Your task to perform on an android device: change keyboard looks Image 0: 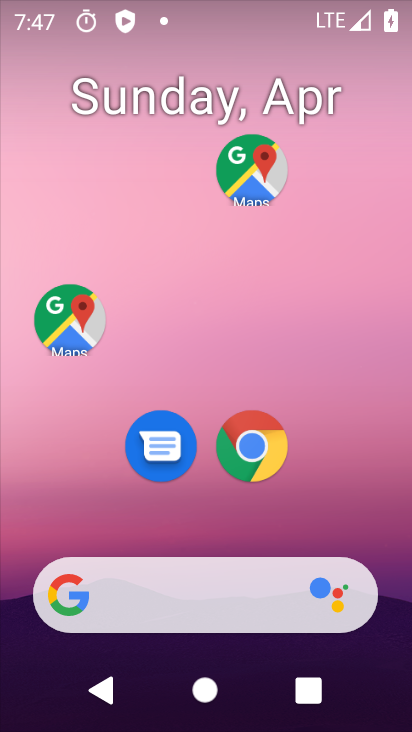
Step 0: drag from (219, 533) to (285, 16)
Your task to perform on an android device: change keyboard looks Image 1: 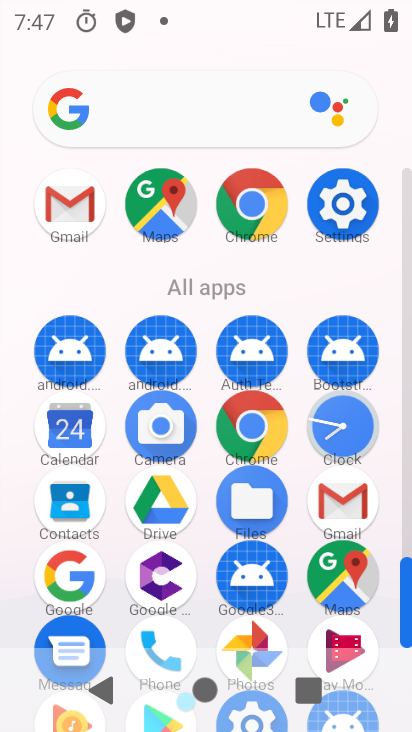
Step 1: click (331, 192)
Your task to perform on an android device: change keyboard looks Image 2: 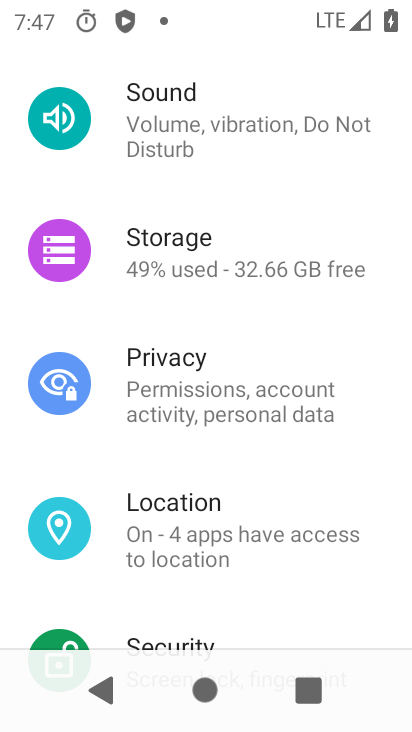
Step 2: drag from (191, 533) to (172, 115)
Your task to perform on an android device: change keyboard looks Image 3: 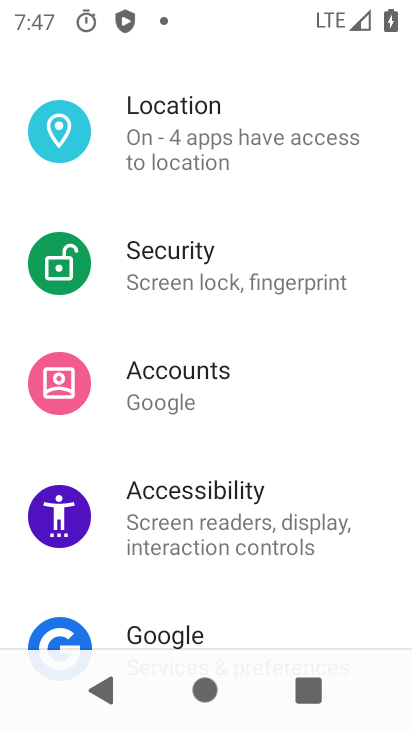
Step 3: click (182, 493)
Your task to perform on an android device: change keyboard looks Image 4: 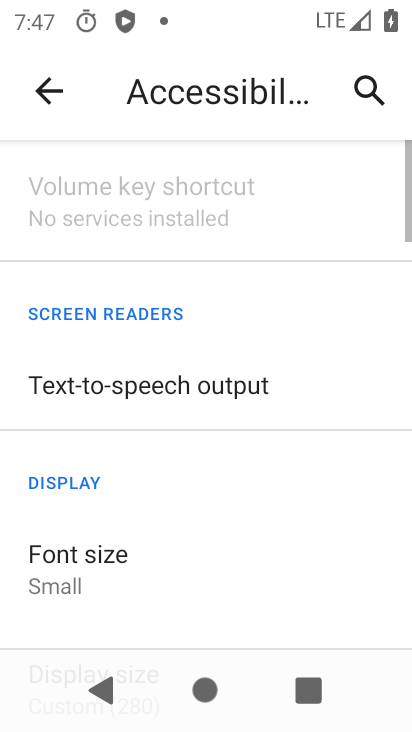
Step 4: click (61, 102)
Your task to perform on an android device: change keyboard looks Image 5: 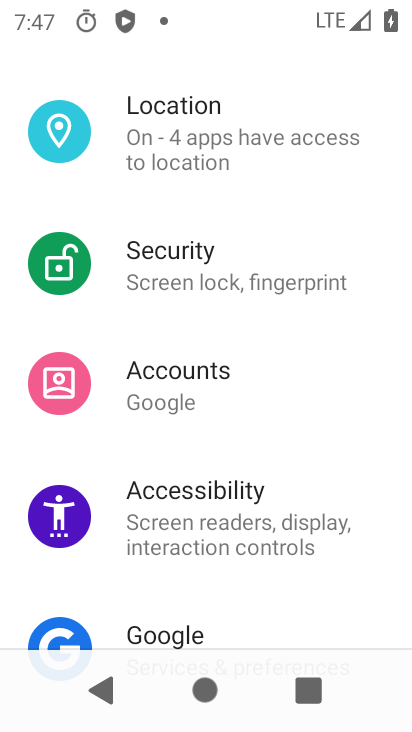
Step 5: drag from (212, 628) to (166, 267)
Your task to perform on an android device: change keyboard looks Image 6: 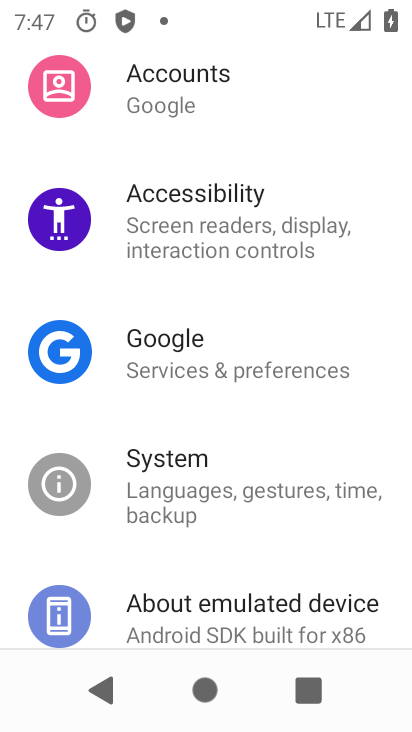
Step 6: click (187, 496)
Your task to perform on an android device: change keyboard looks Image 7: 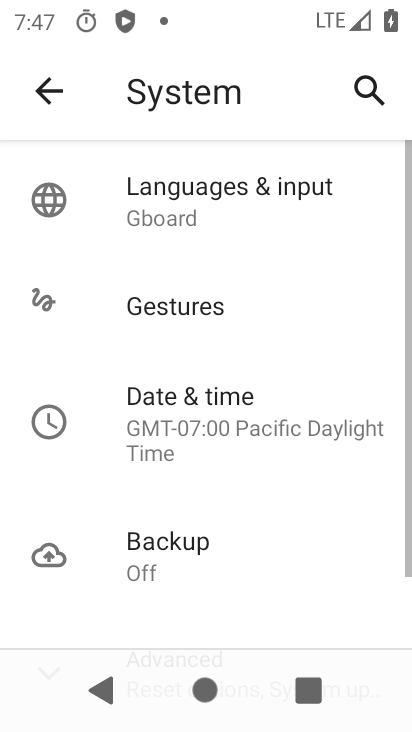
Step 7: click (146, 239)
Your task to perform on an android device: change keyboard looks Image 8: 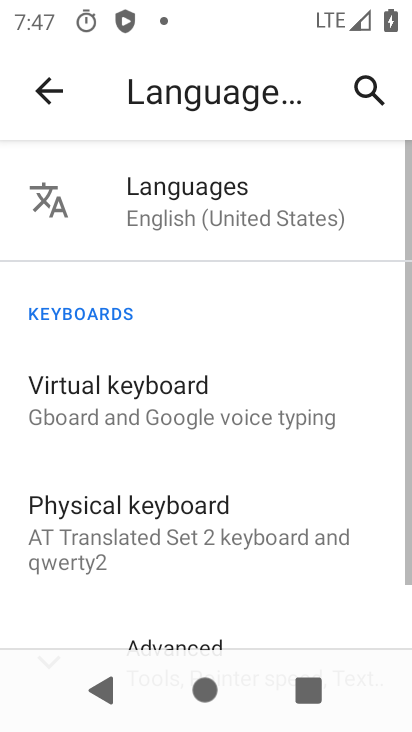
Step 8: click (160, 378)
Your task to perform on an android device: change keyboard looks Image 9: 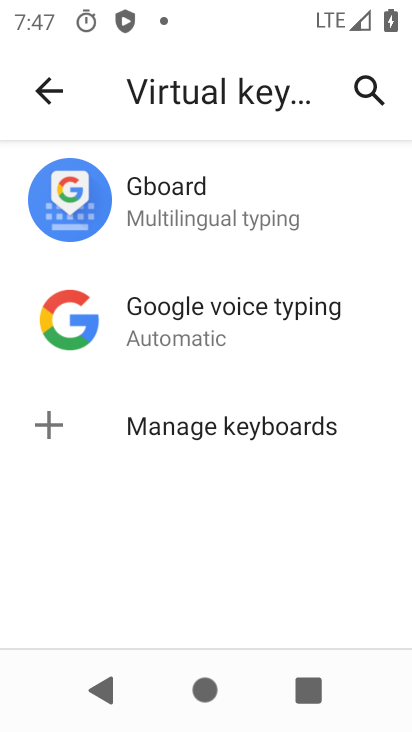
Step 9: click (147, 208)
Your task to perform on an android device: change keyboard looks Image 10: 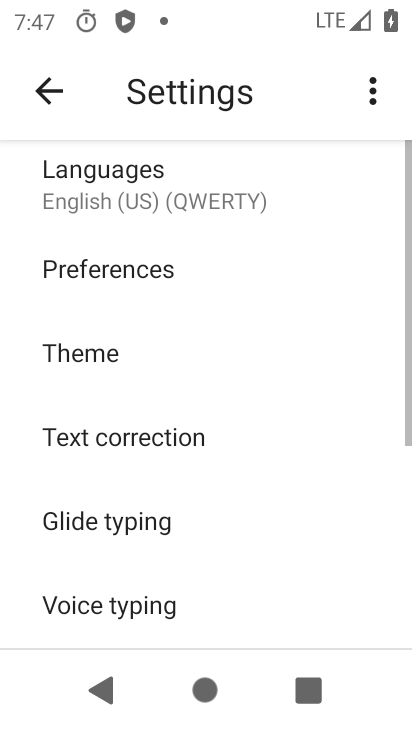
Step 10: click (117, 370)
Your task to perform on an android device: change keyboard looks Image 11: 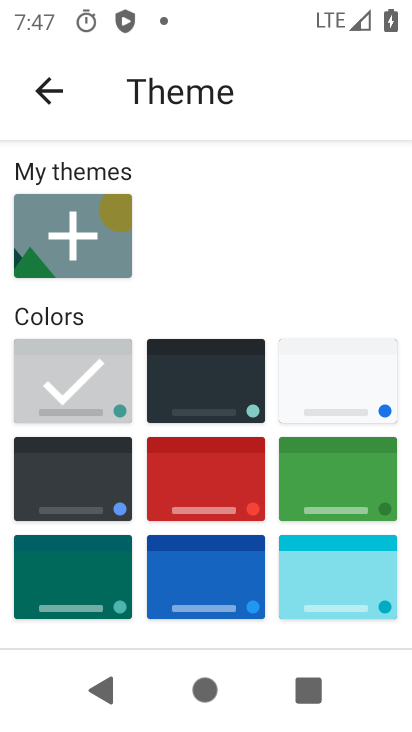
Step 11: click (166, 374)
Your task to perform on an android device: change keyboard looks Image 12: 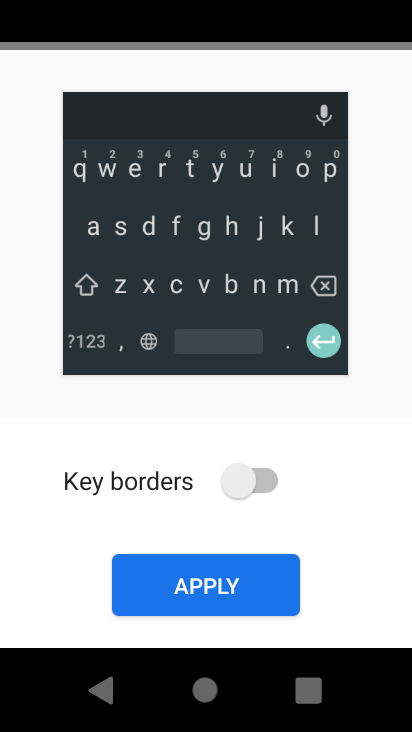
Step 12: click (165, 574)
Your task to perform on an android device: change keyboard looks Image 13: 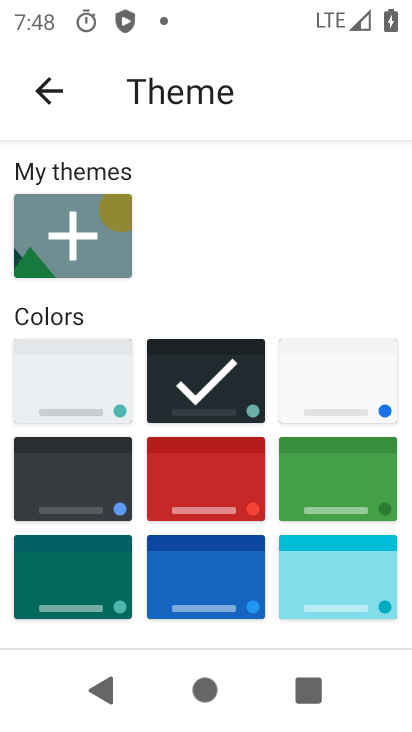
Step 13: task complete